Your task to perform on an android device: Open the map Image 0: 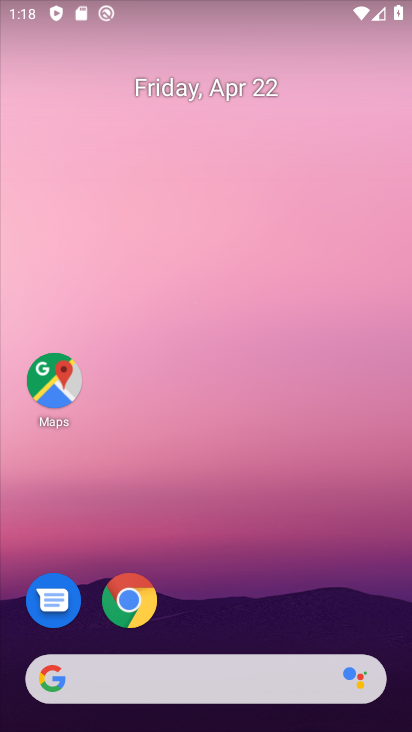
Step 0: click (72, 389)
Your task to perform on an android device: Open the map Image 1: 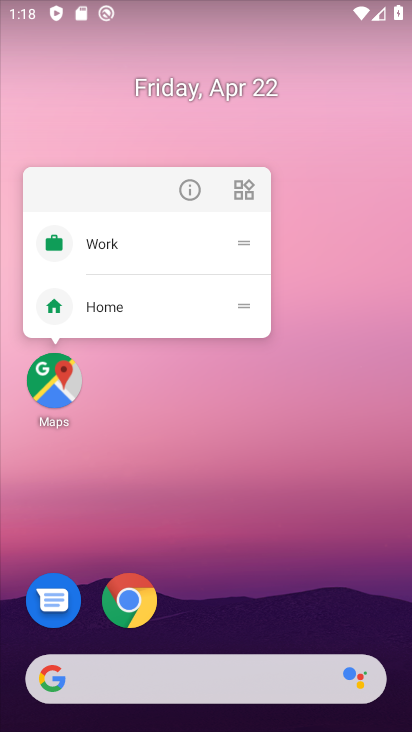
Step 1: click (62, 392)
Your task to perform on an android device: Open the map Image 2: 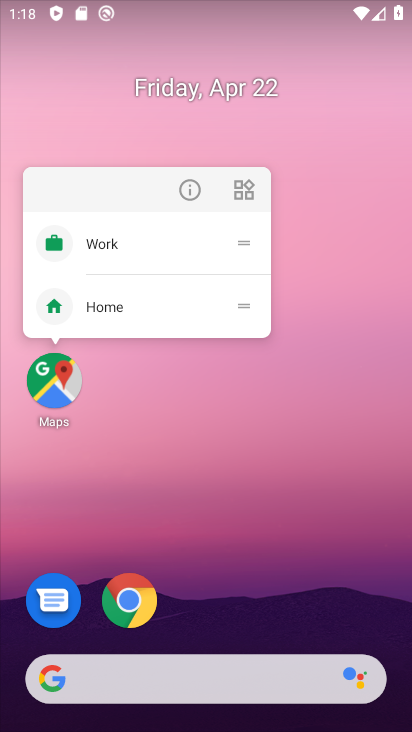
Step 2: click (62, 392)
Your task to perform on an android device: Open the map Image 3: 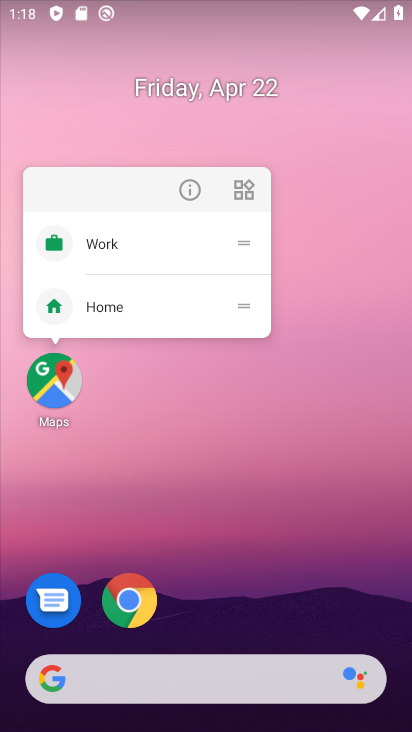
Step 3: click (57, 384)
Your task to perform on an android device: Open the map Image 4: 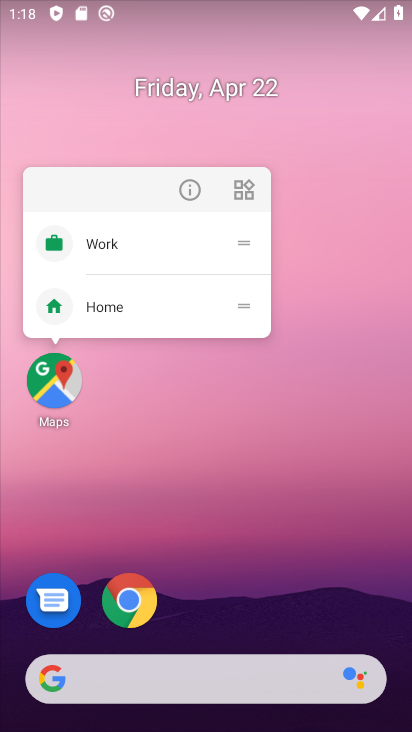
Step 4: click (58, 372)
Your task to perform on an android device: Open the map Image 5: 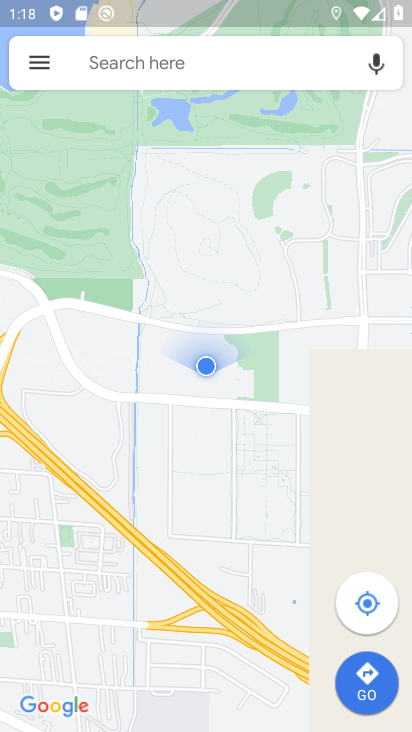
Step 5: task complete